Your task to perform on an android device: Search for sushi restaurants on Maps Image 0: 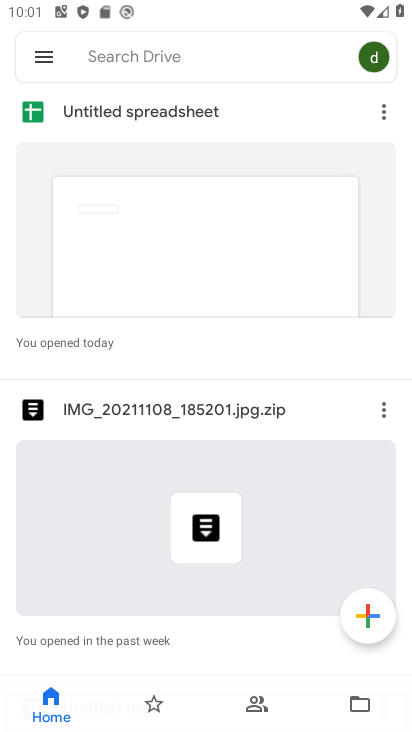
Step 0: press home button
Your task to perform on an android device: Search for sushi restaurants on Maps Image 1: 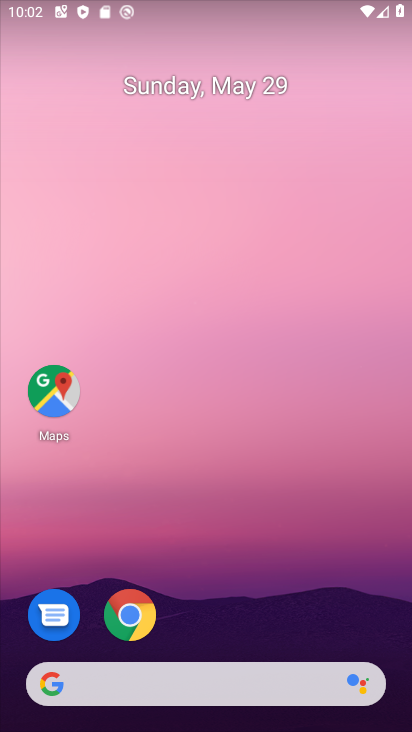
Step 1: click (46, 386)
Your task to perform on an android device: Search for sushi restaurants on Maps Image 2: 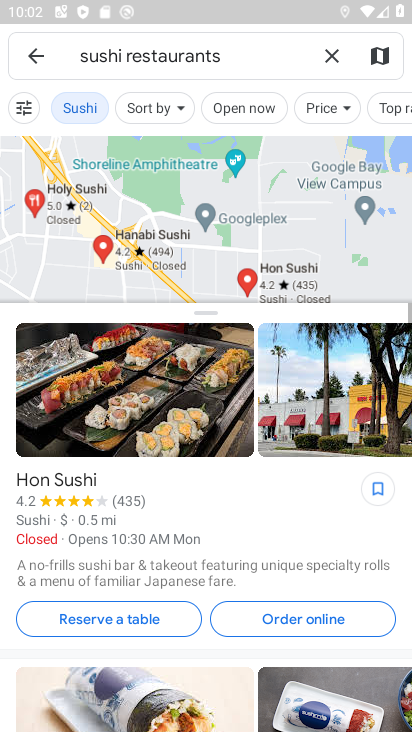
Step 2: task complete